Your task to perform on an android device: Open the stopwatch Image 0: 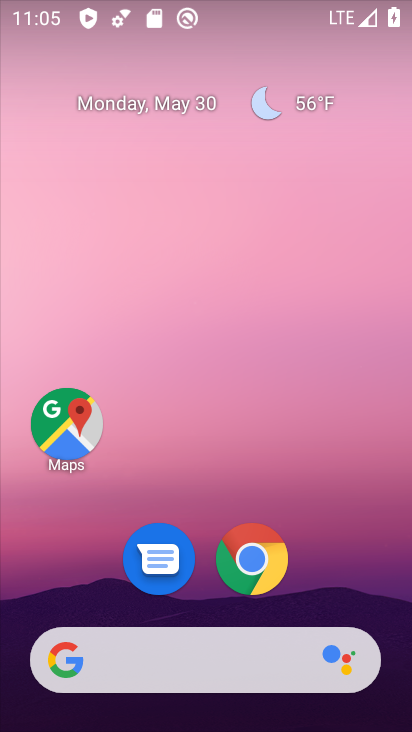
Step 0: drag from (340, 593) to (314, 251)
Your task to perform on an android device: Open the stopwatch Image 1: 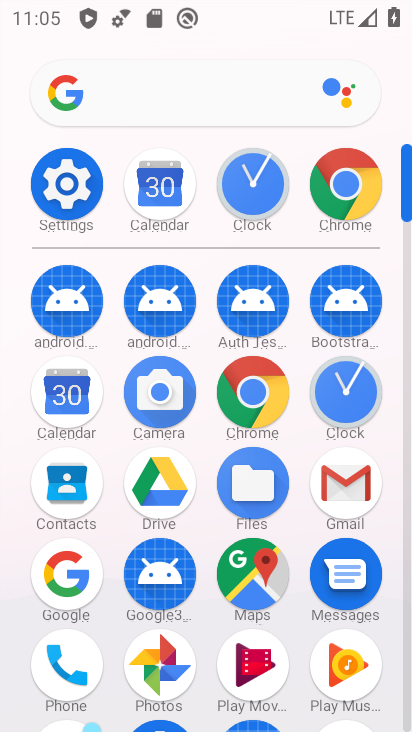
Step 1: click (259, 177)
Your task to perform on an android device: Open the stopwatch Image 2: 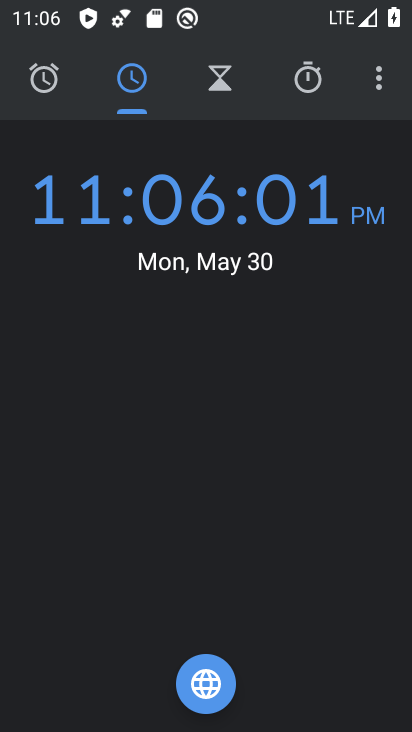
Step 2: click (319, 75)
Your task to perform on an android device: Open the stopwatch Image 3: 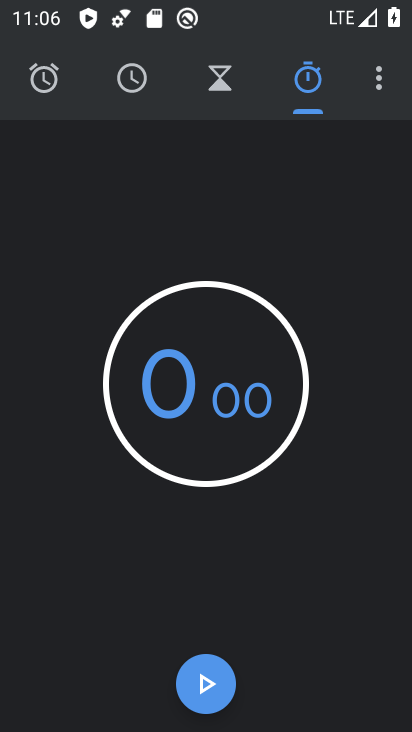
Step 3: task complete